Your task to perform on an android device: Show me productivity apps on the Play Store Image 0: 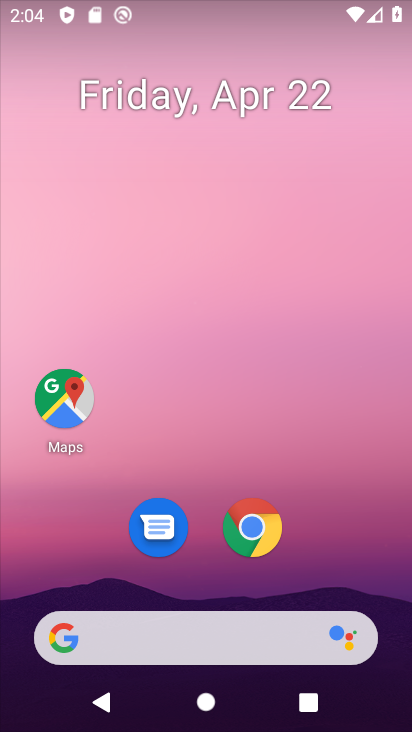
Step 0: drag from (366, 579) to (282, 38)
Your task to perform on an android device: Show me productivity apps on the Play Store Image 1: 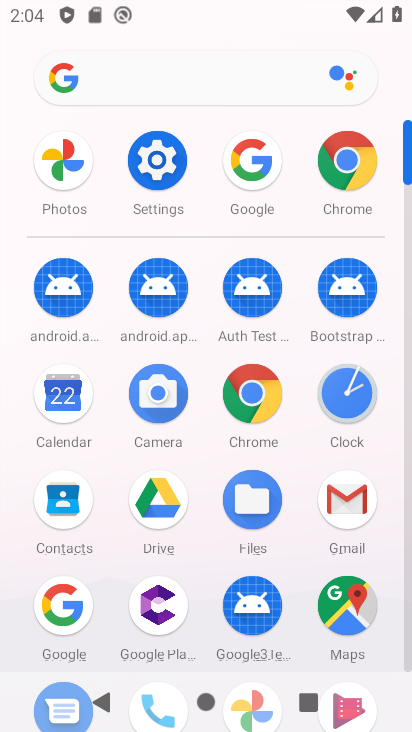
Step 1: click (406, 671)
Your task to perform on an android device: Show me productivity apps on the Play Store Image 2: 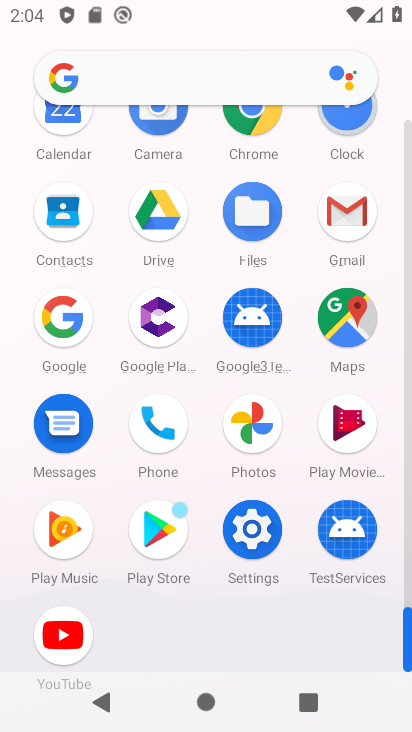
Step 2: click (144, 541)
Your task to perform on an android device: Show me productivity apps on the Play Store Image 3: 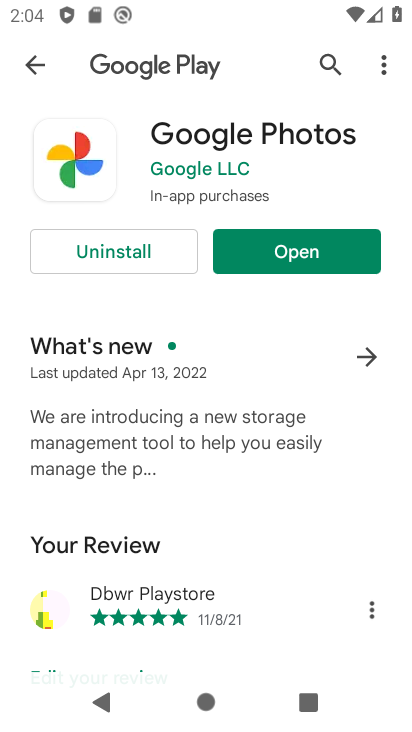
Step 3: press back button
Your task to perform on an android device: Show me productivity apps on the Play Store Image 4: 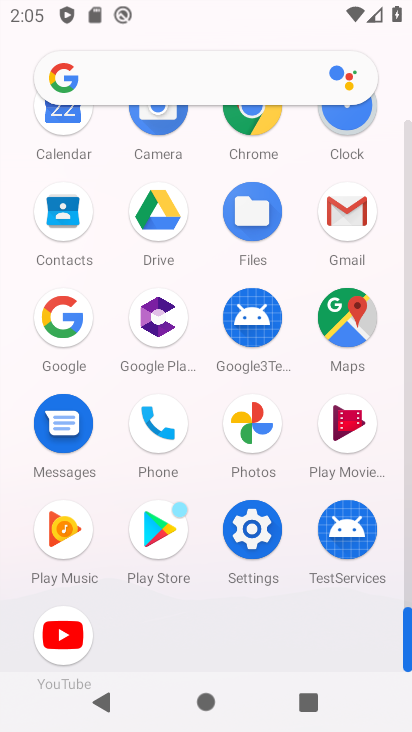
Step 4: click (164, 523)
Your task to perform on an android device: Show me productivity apps on the Play Store Image 5: 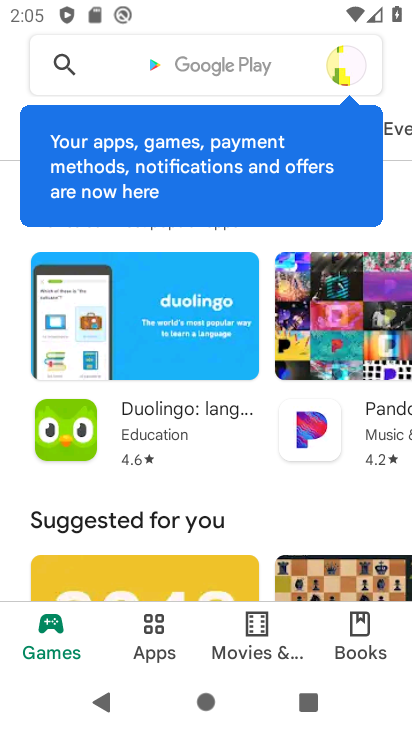
Step 5: click (143, 636)
Your task to perform on an android device: Show me productivity apps on the Play Store Image 6: 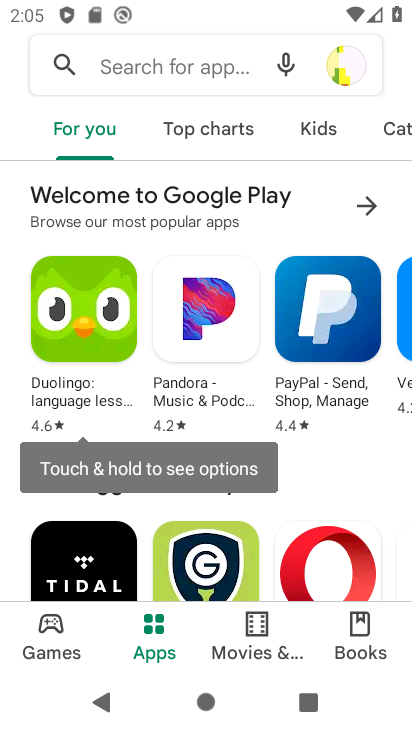
Step 6: task complete